Your task to perform on an android device: turn on the 12-hour format for clock Image 0: 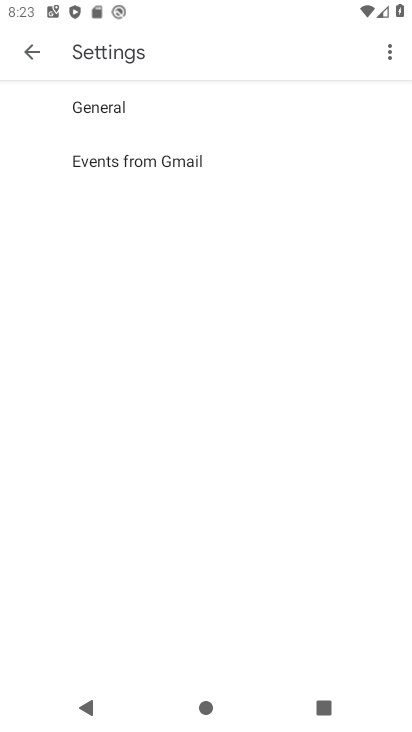
Step 0: press home button
Your task to perform on an android device: turn on the 12-hour format for clock Image 1: 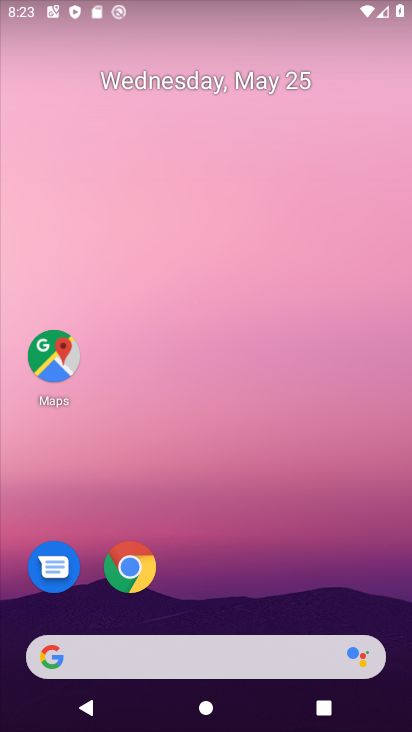
Step 1: drag from (256, 520) to (269, 31)
Your task to perform on an android device: turn on the 12-hour format for clock Image 2: 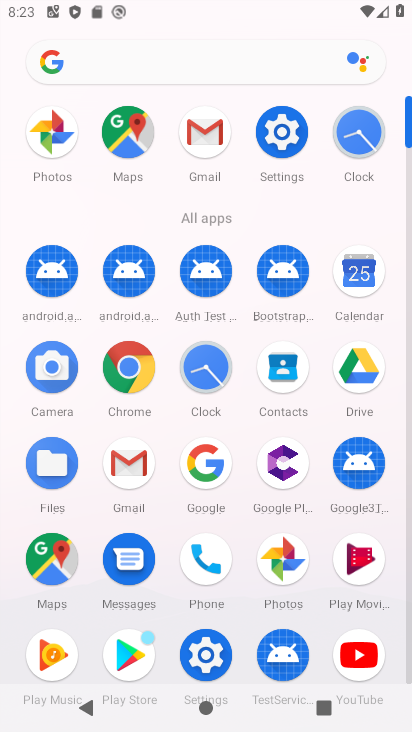
Step 2: click (361, 138)
Your task to perform on an android device: turn on the 12-hour format for clock Image 3: 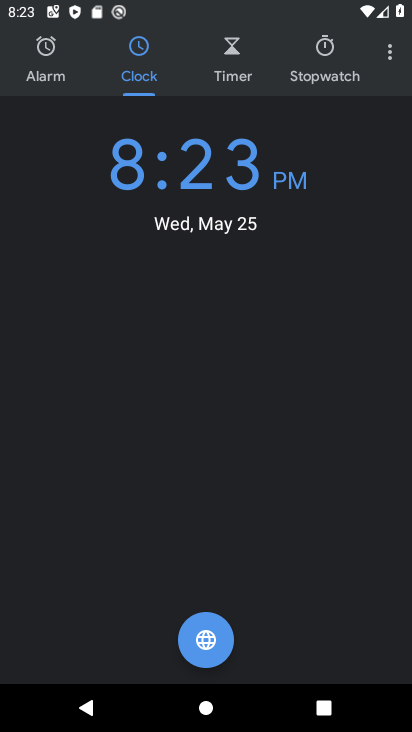
Step 3: click (388, 58)
Your task to perform on an android device: turn on the 12-hour format for clock Image 4: 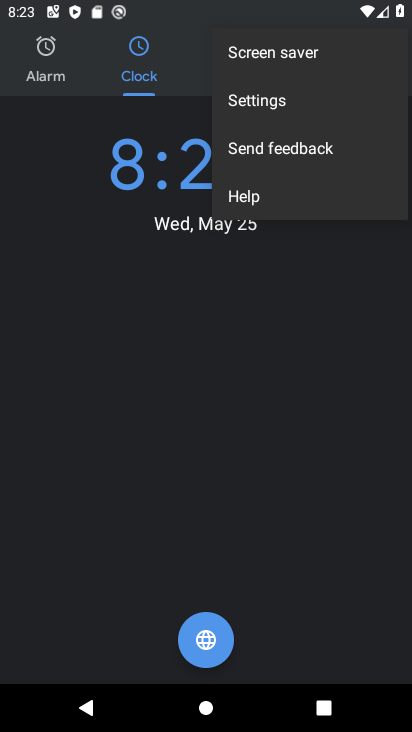
Step 4: click (331, 88)
Your task to perform on an android device: turn on the 12-hour format for clock Image 5: 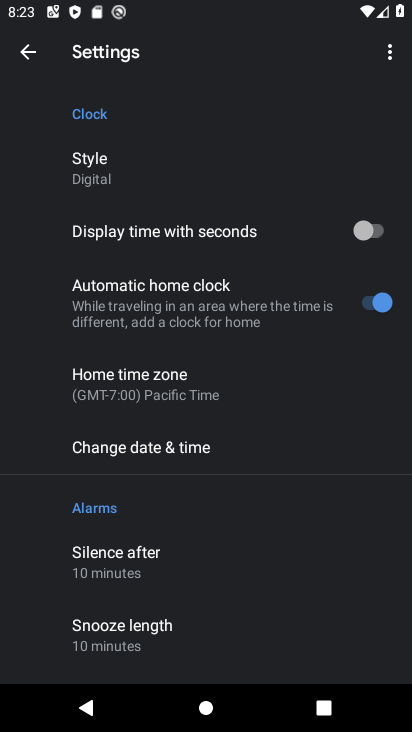
Step 5: click (272, 446)
Your task to perform on an android device: turn on the 12-hour format for clock Image 6: 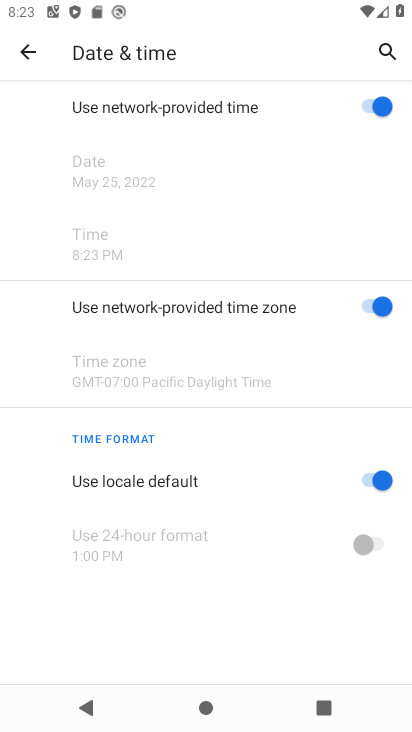
Step 6: task complete